Your task to perform on an android device: Go to battery settings Image 0: 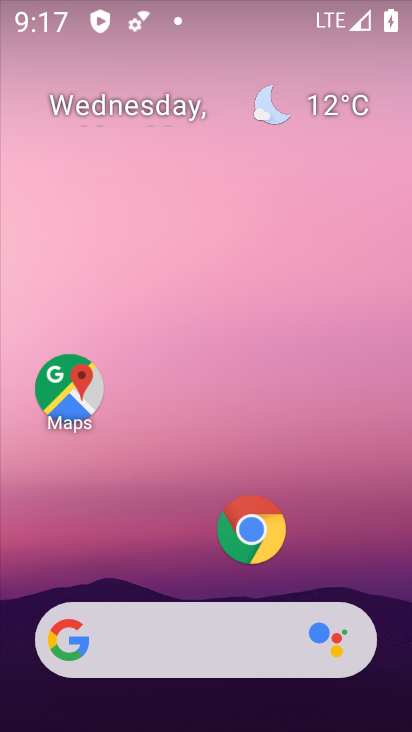
Step 0: drag from (204, 556) to (204, 69)
Your task to perform on an android device: Go to battery settings Image 1: 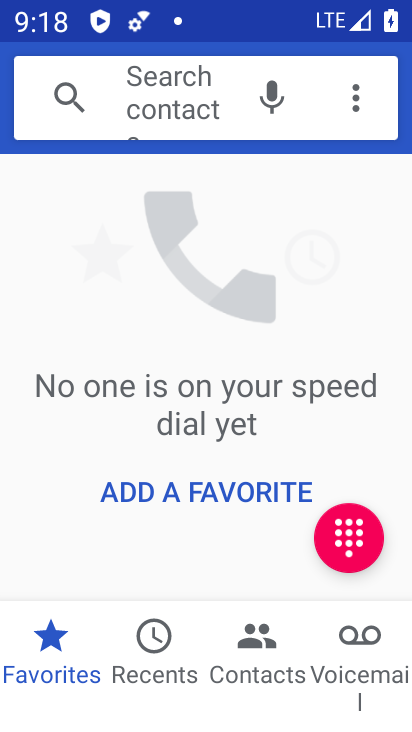
Step 1: press home button
Your task to perform on an android device: Go to battery settings Image 2: 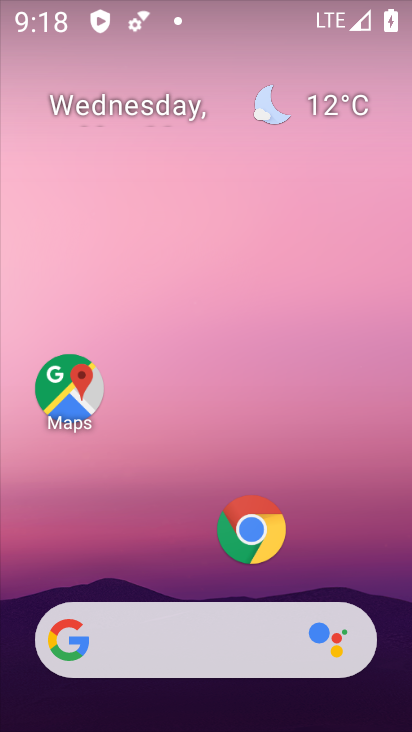
Step 2: drag from (208, 591) to (199, 232)
Your task to perform on an android device: Go to battery settings Image 3: 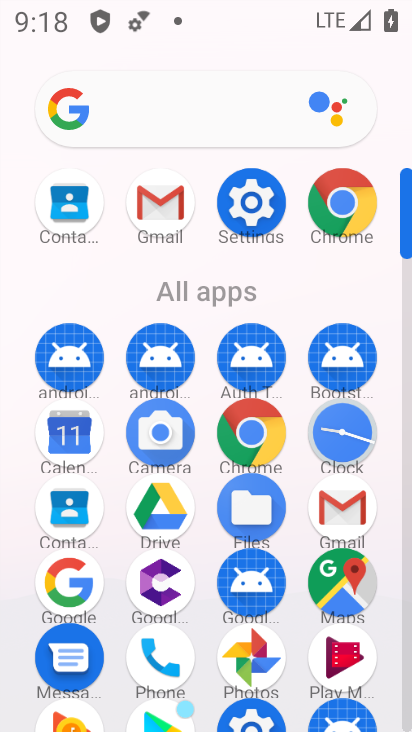
Step 3: click (251, 208)
Your task to perform on an android device: Go to battery settings Image 4: 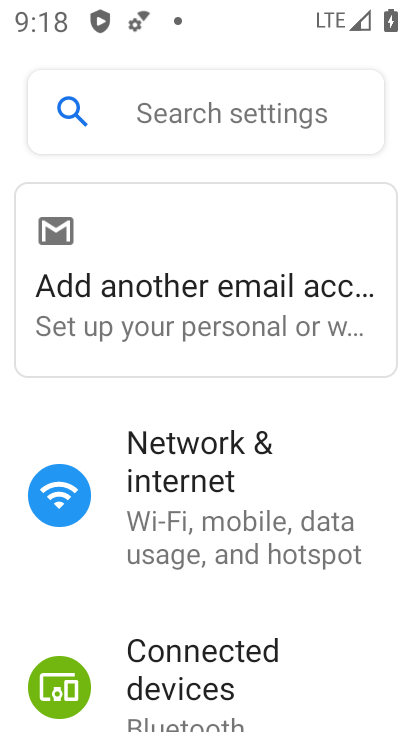
Step 4: drag from (284, 684) to (311, 285)
Your task to perform on an android device: Go to battery settings Image 5: 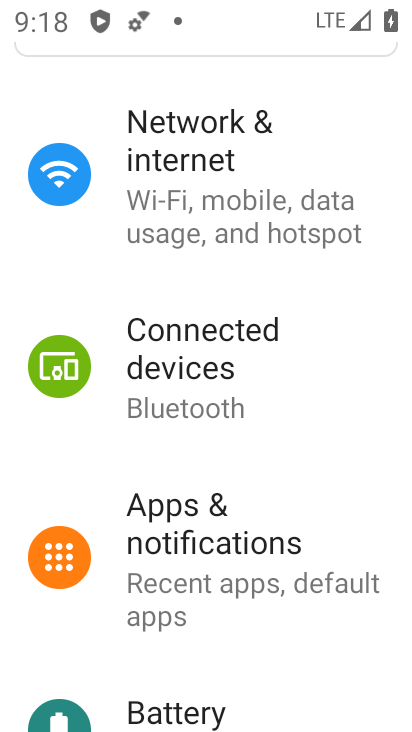
Step 5: drag from (271, 678) to (269, 314)
Your task to perform on an android device: Go to battery settings Image 6: 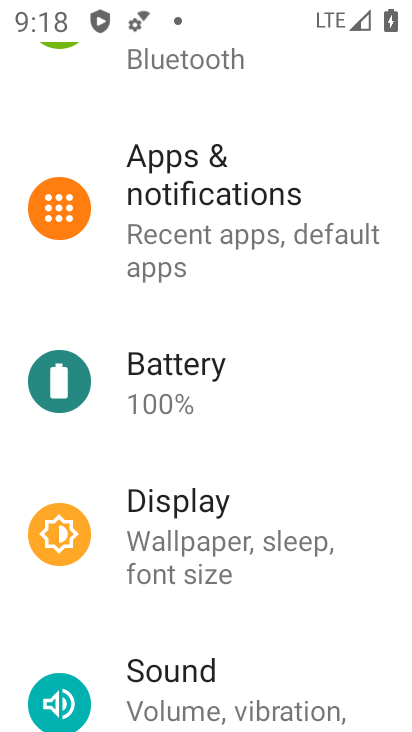
Step 6: click (227, 372)
Your task to perform on an android device: Go to battery settings Image 7: 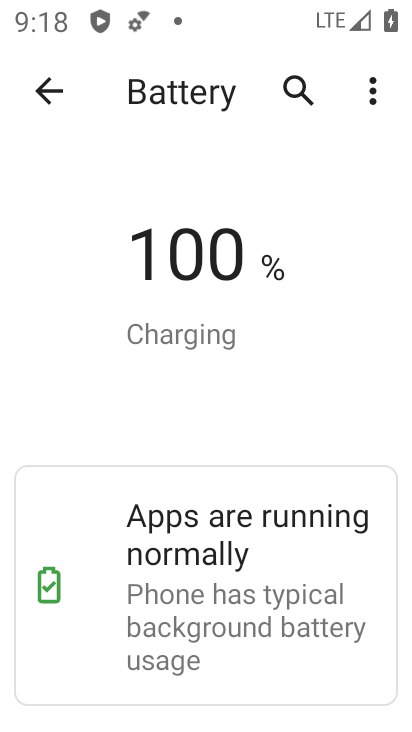
Step 7: task complete